Your task to perform on an android device: Set the phone to "Do not disturb". Image 0: 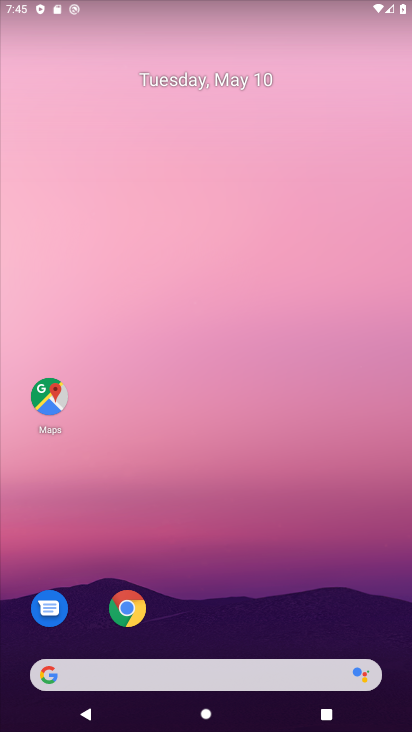
Step 0: drag from (319, 648) to (334, 365)
Your task to perform on an android device: Set the phone to "Do not disturb". Image 1: 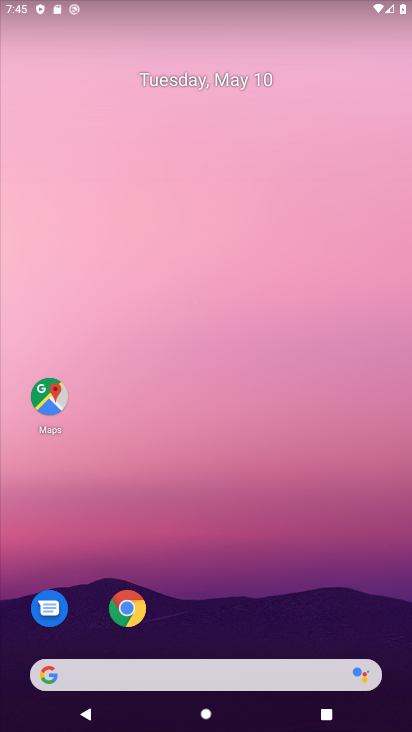
Step 1: drag from (228, 622) to (239, 272)
Your task to perform on an android device: Set the phone to "Do not disturb". Image 2: 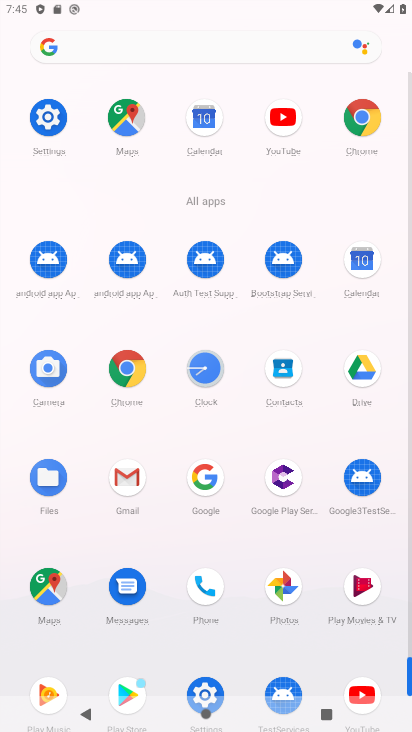
Step 2: click (52, 112)
Your task to perform on an android device: Set the phone to "Do not disturb". Image 3: 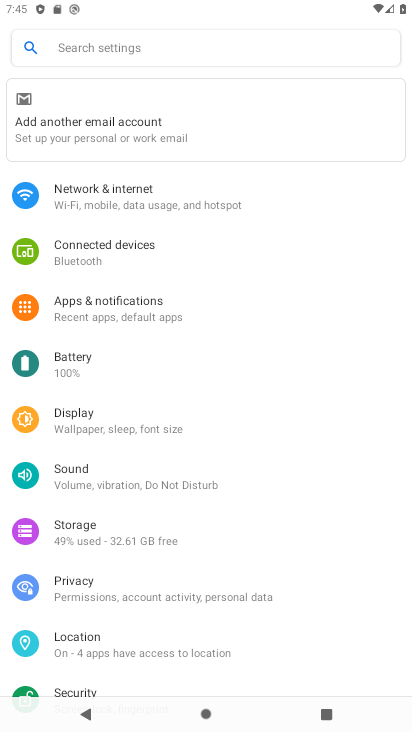
Step 3: click (149, 197)
Your task to perform on an android device: Set the phone to "Do not disturb". Image 4: 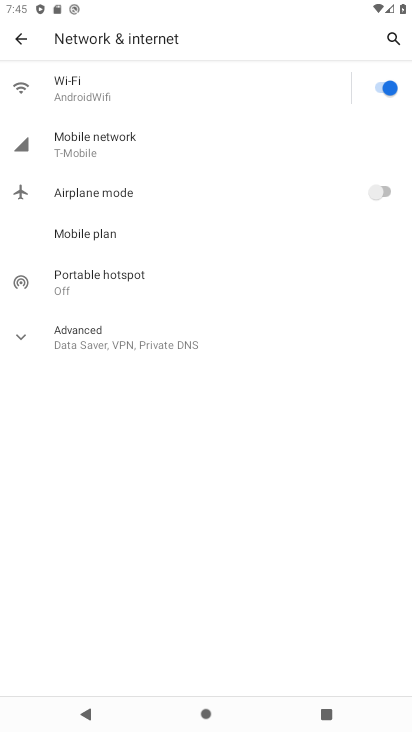
Step 4: drag from (194, 19) to (165, 588)
Your task to perform on an android device: Set the phone to "Do not disturb". Image 5: 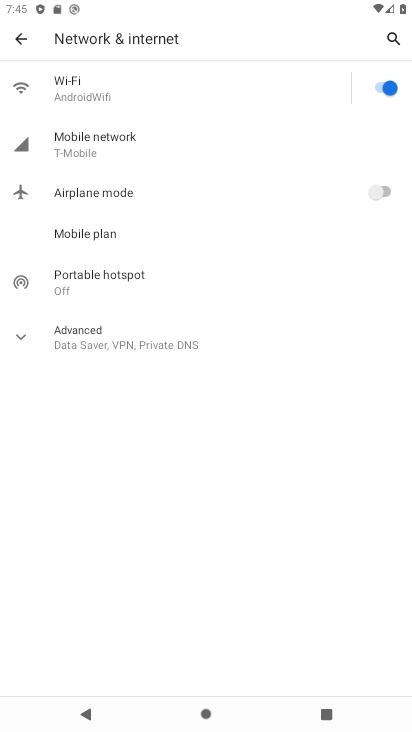
Step 5: drag from (161, 9) to (144, 663)
Your task to perform on an android device: Set the phone to "Do not disturb". Image 6: 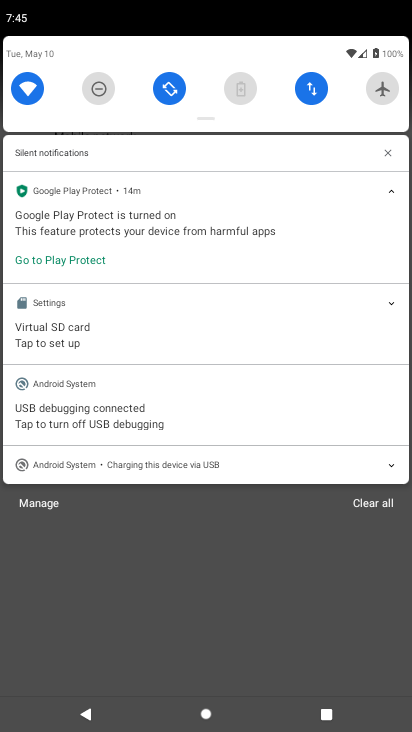
Step 6: click (91, 89)
Your task to perform on an android device: Set the phone to "Do not disturb". Image 7: 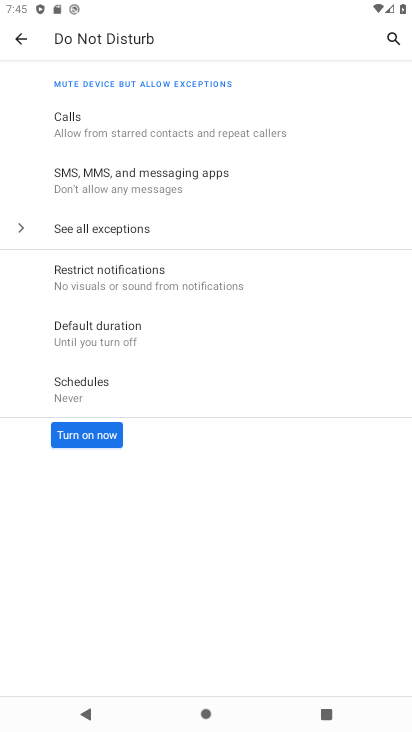
Step 7: click (72, 437)
Your task to perform on an android device: Set the phone to "Do not disturb". Image 8: 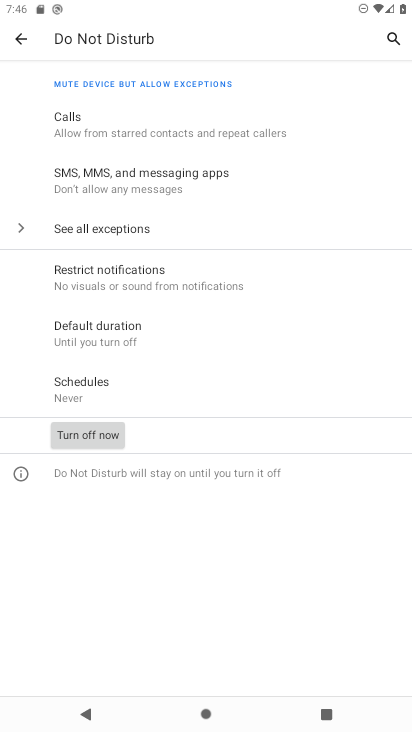
Step 8: task complete